Your task to perform on an android device: Go to display settings Image 0: 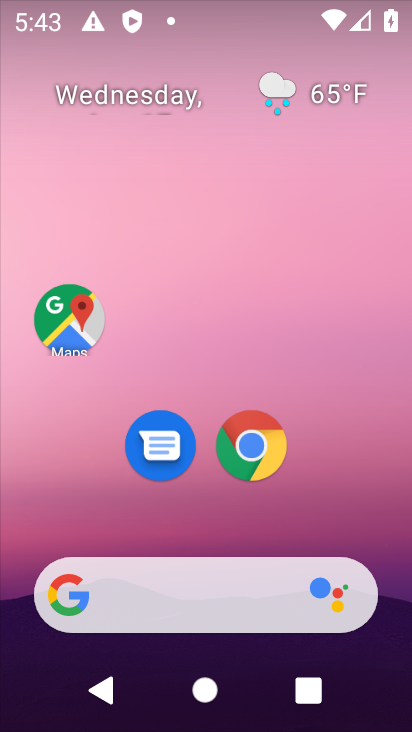
Step 0: drag from (201, 483) to (248, 88)
Your task to perform on an android device: Go to display settings Image 1: 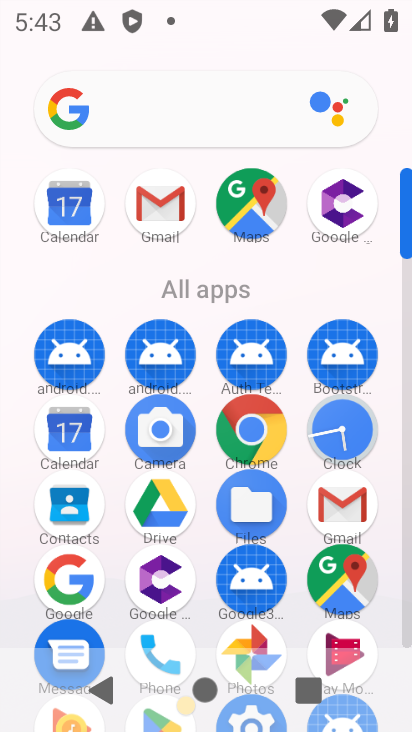
Step 1: drag from (198, 304) to (198, 175)
Your task to perform on an android device: Go to display settings Image 2: 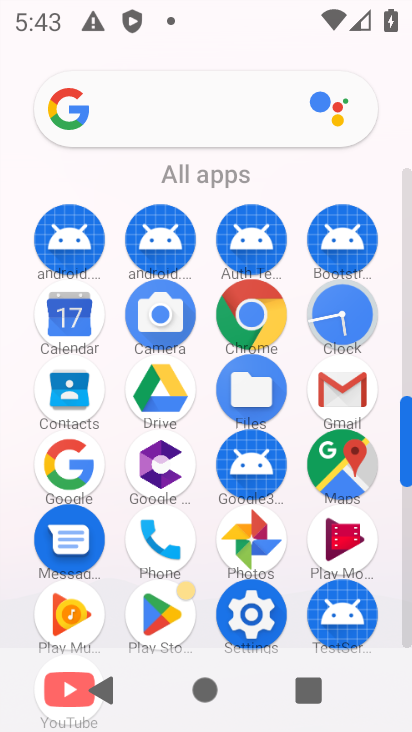
Step 2: click (252, 601)
Your task to perform on an android device: Go to display settings Image 3: 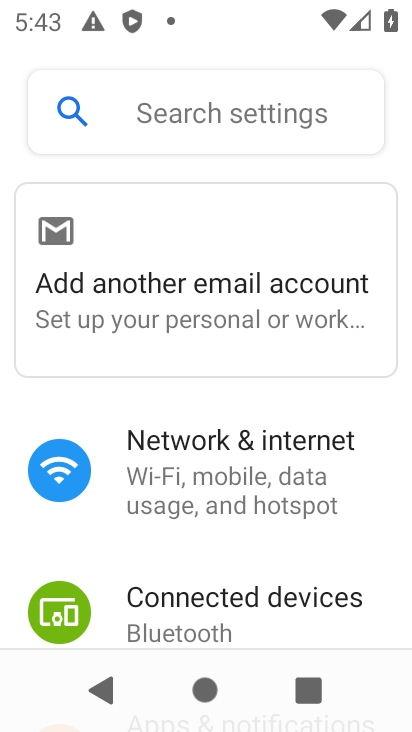
Step 3: drag from (236, 546) to (237, 211)
Your task to perform on an android device: Go to display settings Image 4: 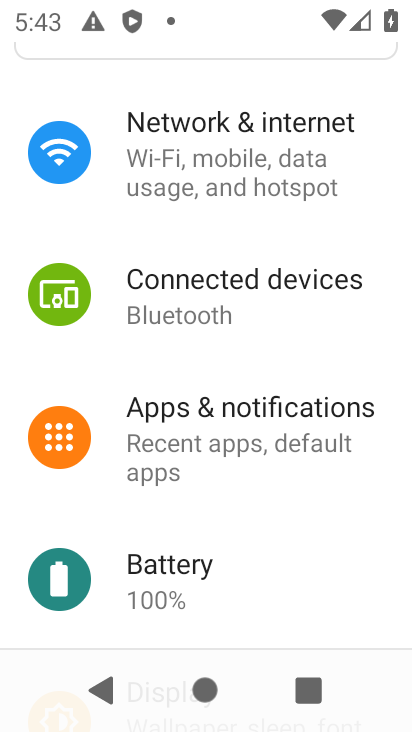
Step 4: drag from (236, 542) to (283, 245)
Your task to perform on an android device: Go to display settings Image 5: 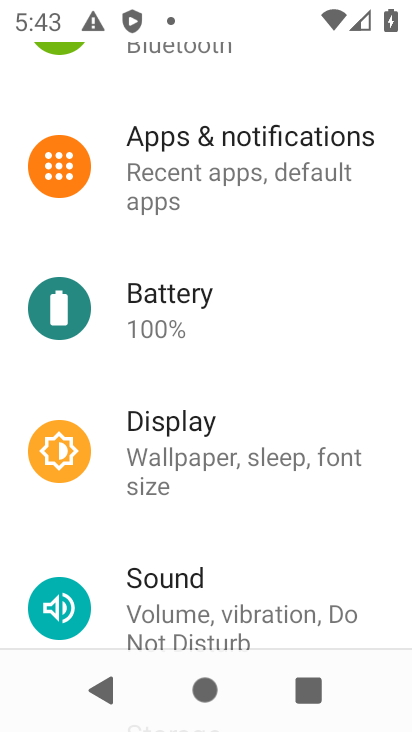
Step 5: click (214, 439)
Your task to perform on an android device: Go to display settings Image 6: 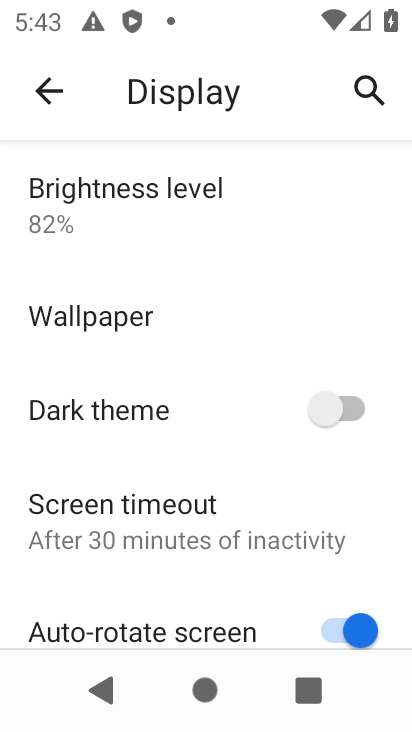
Step 6: task complete